Your task to perform on an android device: Open Google Chrome and click the shortcut for Amazon.com Image 0: 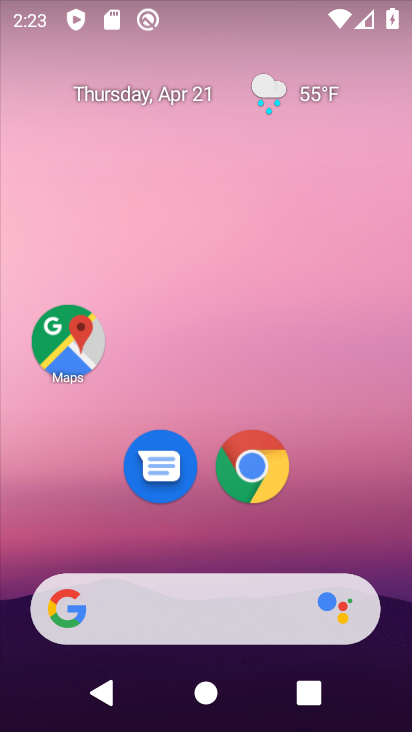
Step 0: drag from (285, 555) to (277, 23)
Your task to perform on an android device: Open Google Chrome and click the shortcut for Amazon.com Image 1: 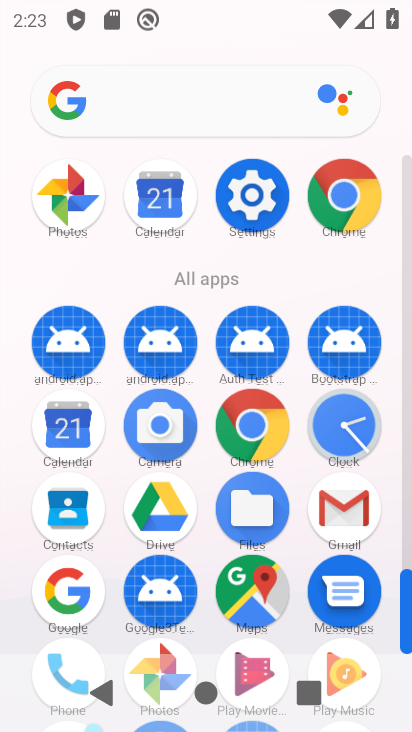
Step 1: click (273, 437)
Your task to perform on an android device: Open Google Chrome and click the shortcut for Amazon.com Image 2: 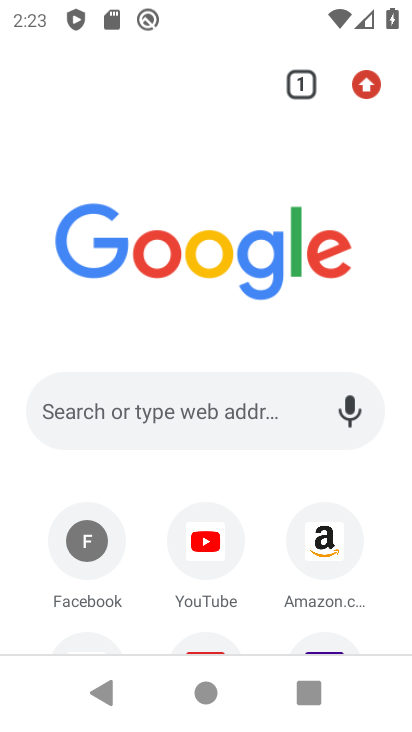
Step 2: click (330, 566)
Your task to perform on an android device: Open Google Chrome and click the shortcut for Amazon.com Image 3: 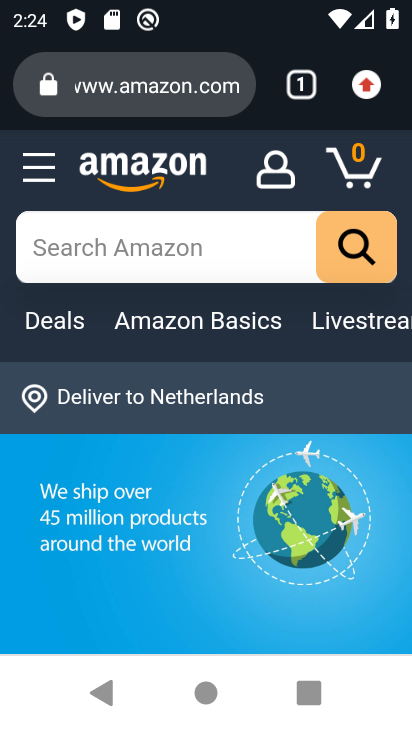
Step 3: task complete